Your task to perform on an android device: stop showing notifications on the lock screen Image 0: 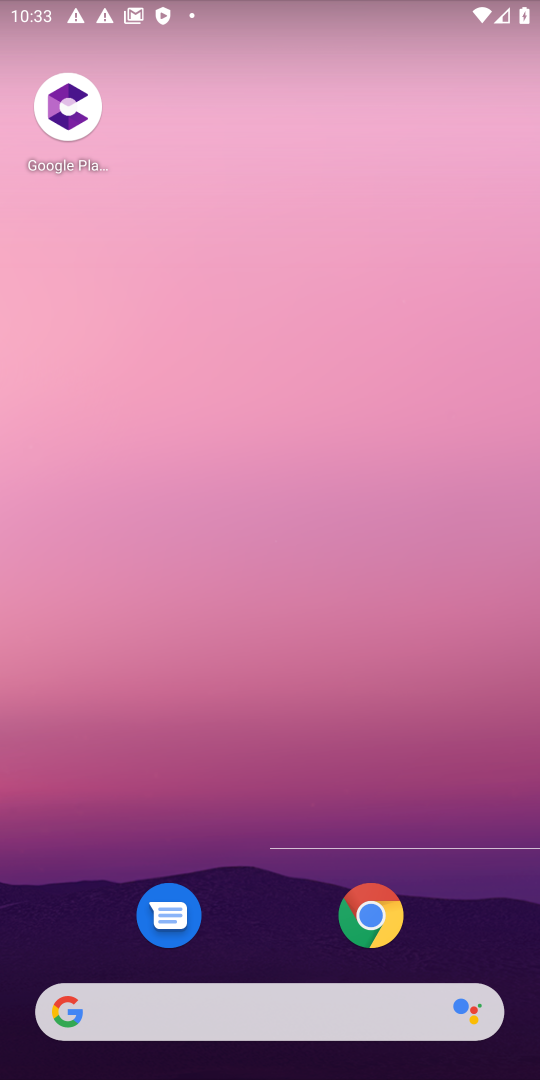
Step 0: drag from (265, 958) to (257, 10)
Your task to perform on an android device: stop showing notifications on the lock screen Image 1: 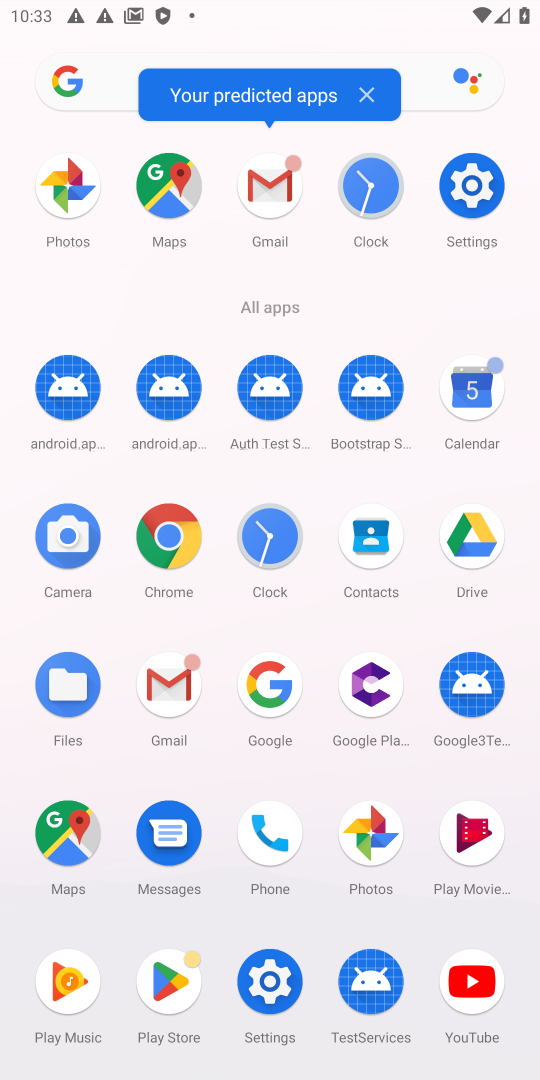
Step 1: click (272, 980)
Your task to perform on an android device: stop showing notifications on the lock screen Image 2: 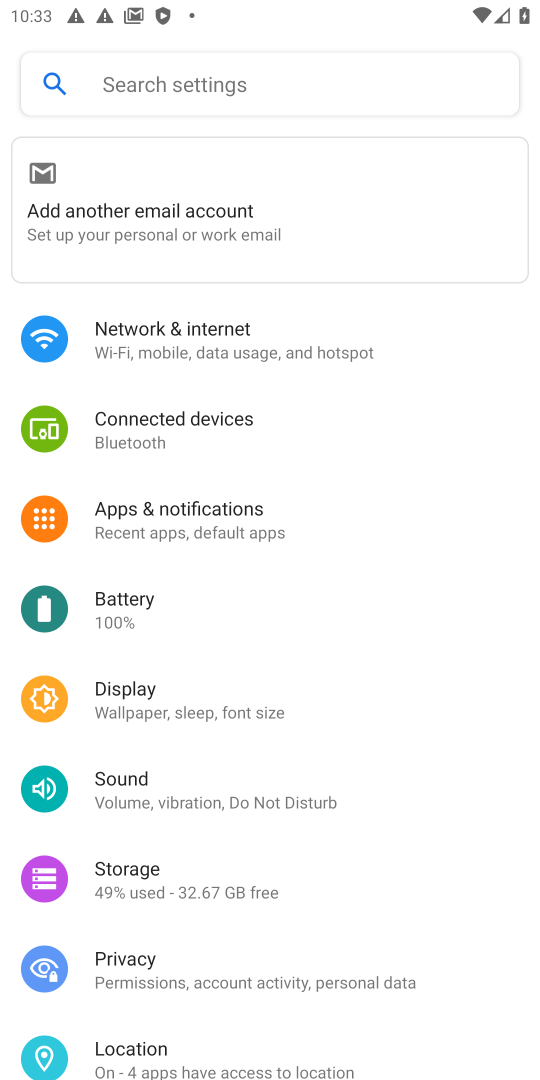
Step 2: click (201, 523)
Your task to perform on an android device: stop showing notifications on the lock screen Image 3: 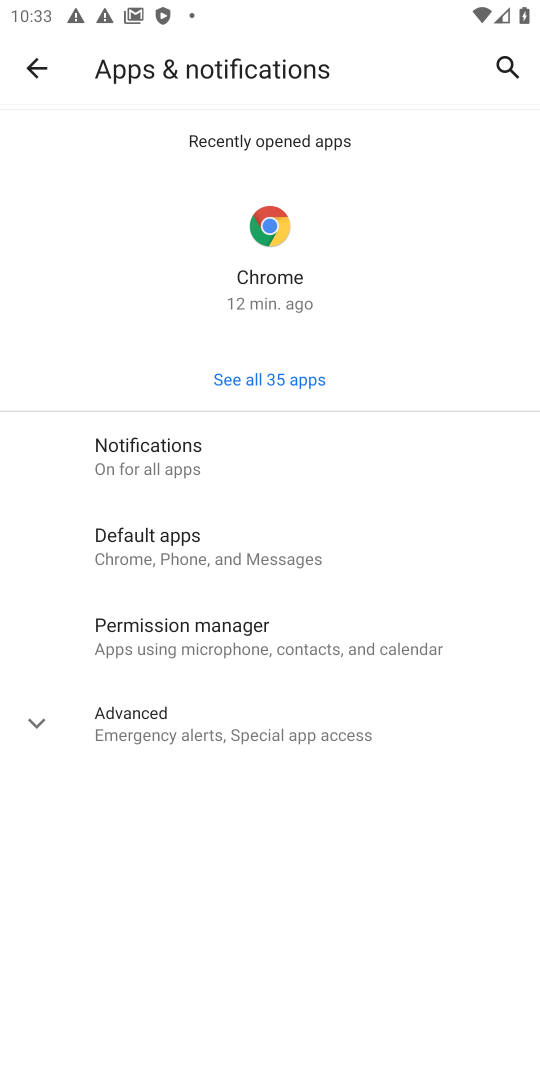
Step 3: click (130, 460)
Your task to perform on an android device: stop showing notifications on the lock screen Image 4: 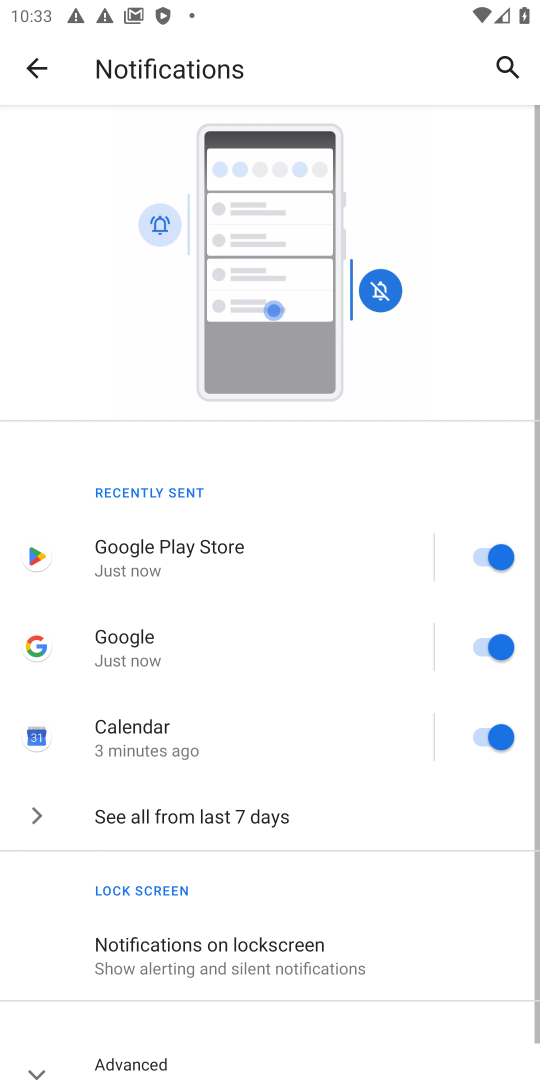
Step 4: click (202, 940)
Your task to perform on an android device: stop showing notifications on the lock screen Image 5: 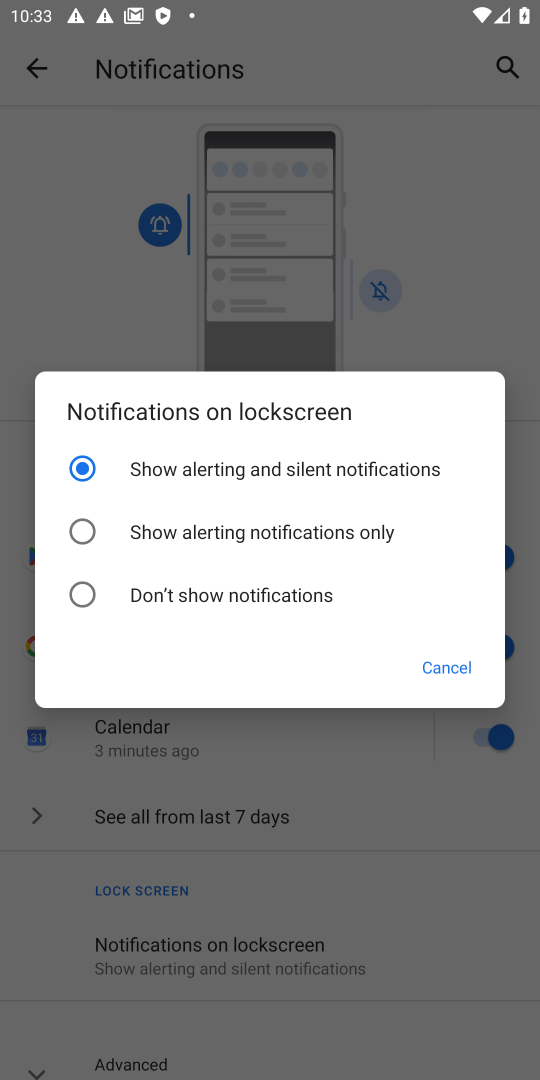
Step 5: click (85, 597)
Your task to perform on an android device: stop showing notifications on the lock screen Image 6: 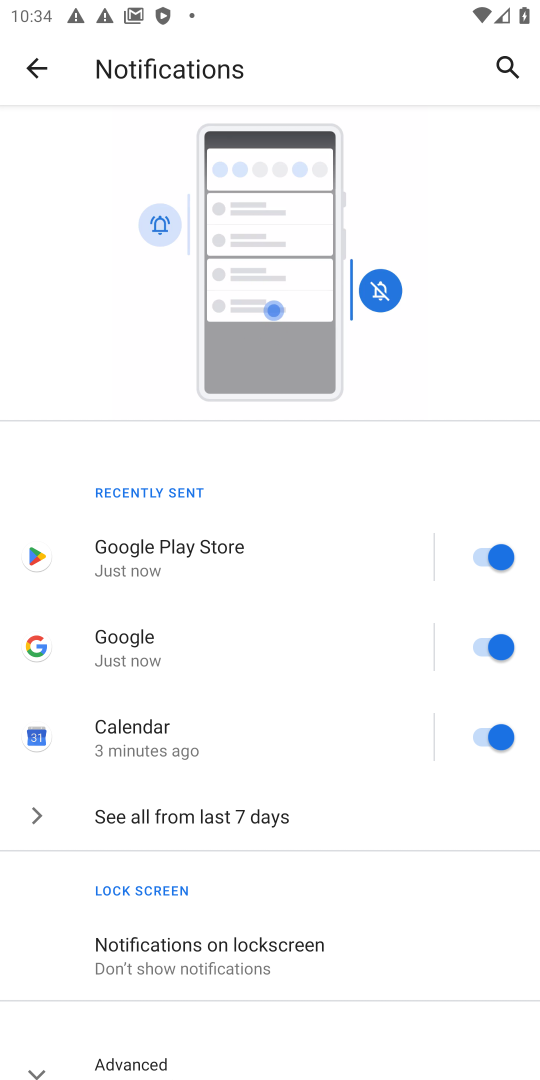
Step 6: task complete